Your task to perform on an android device: uninstall "Microsoft Excel" Image 0: 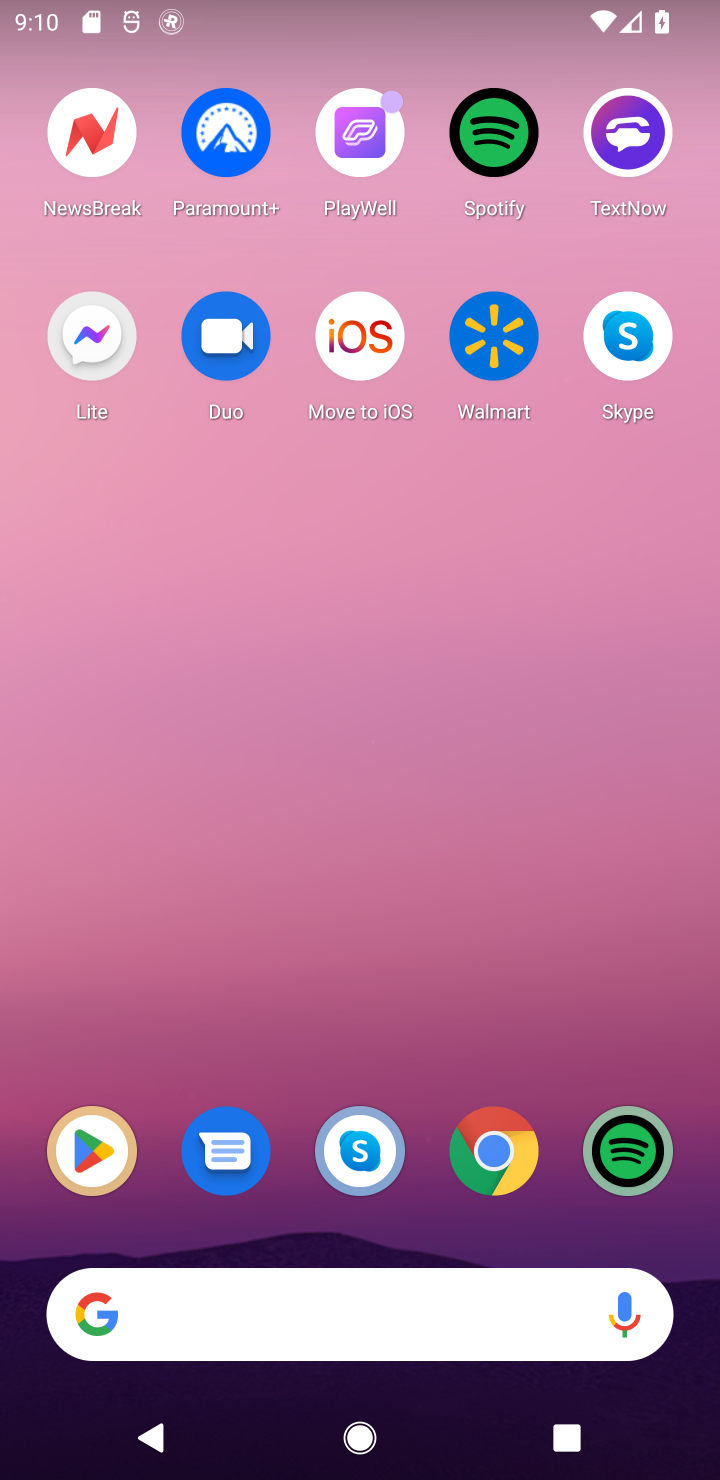
Step 0: click (120, 1159)
Your task to perform on an android device: uninstall "Microsoft Excel" Image 1: 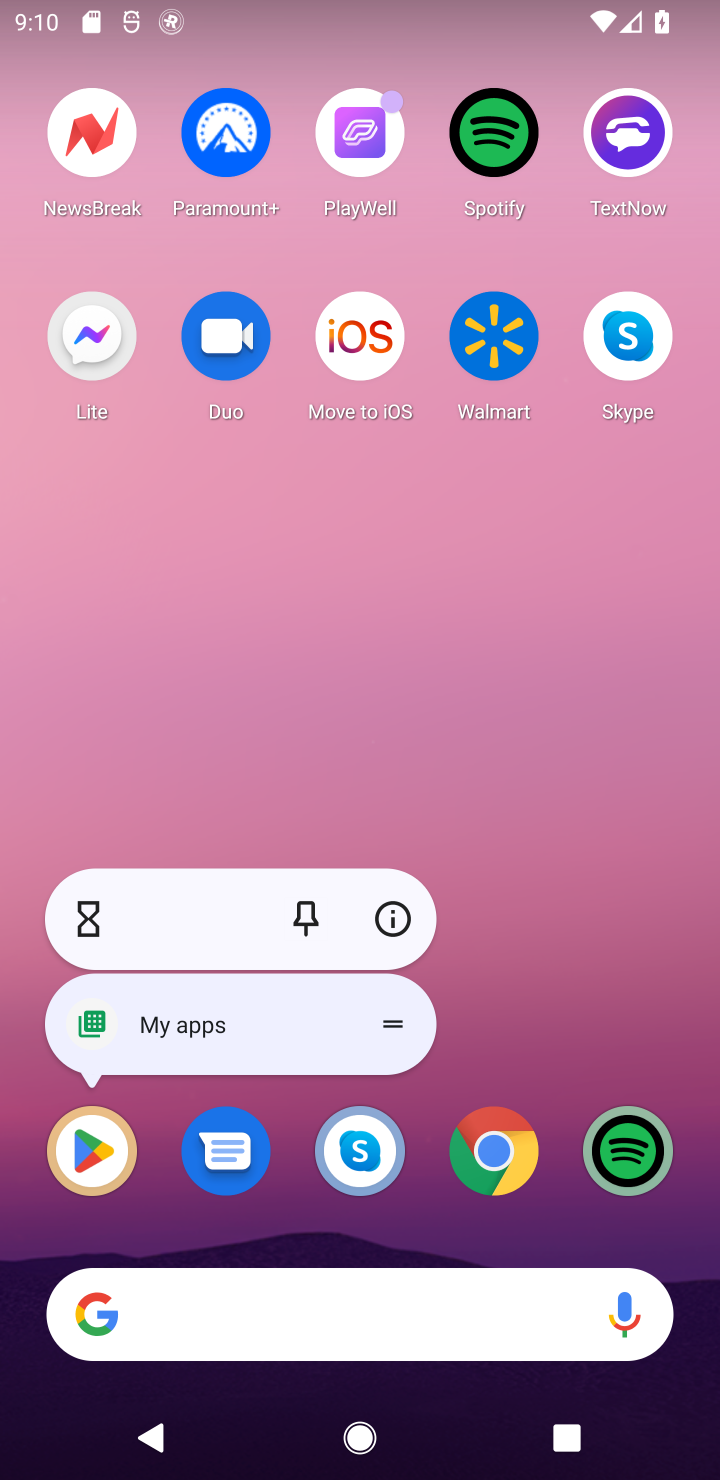
Step 1: click (120, 1159)
Your task to perform on an android device: uninstall "Microsoft Excel" Image 2: 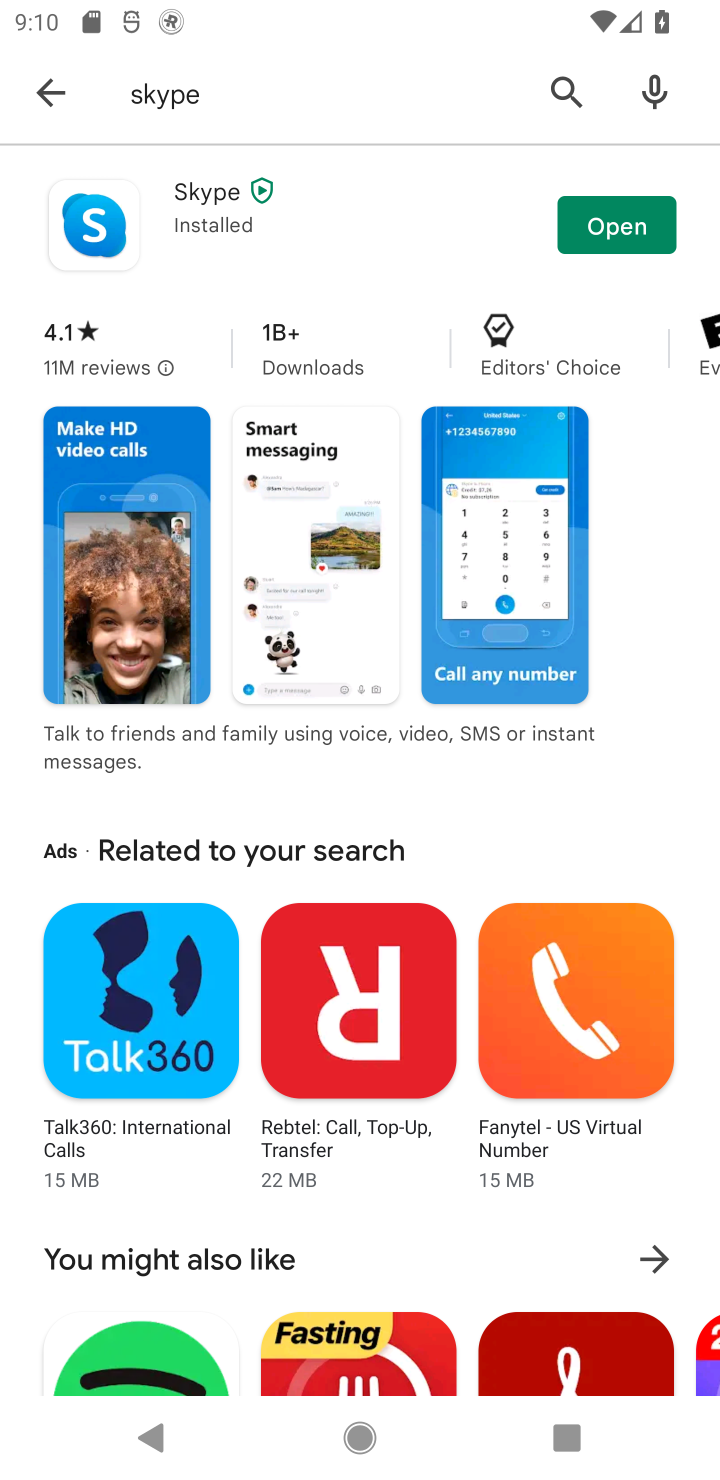
Step 2: click (568, 63)
Your task to perform on an android device: uninstall "Microsoft Excel" Image 3: 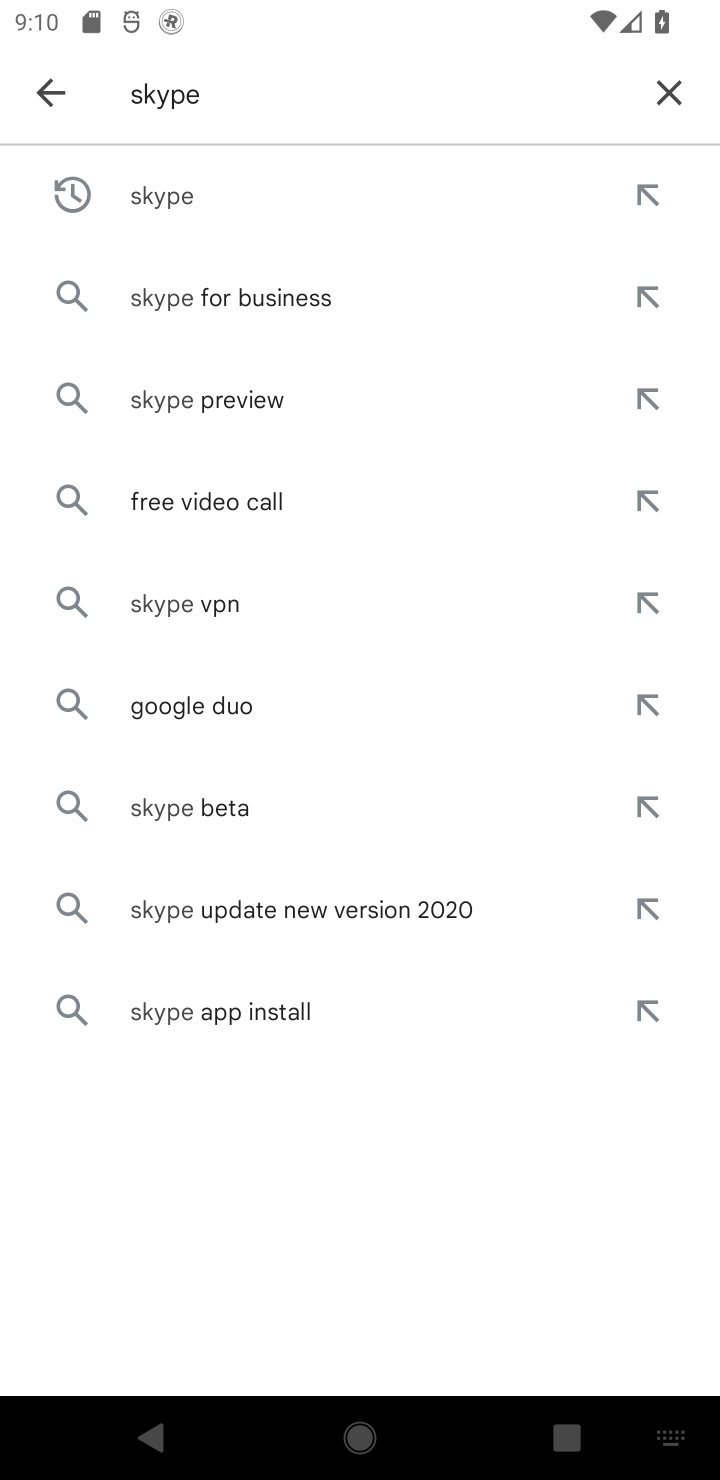
Step 3: click (664, 103)
Your task to perform on an android device: uninstall "Microsoft Excel" Image 4: 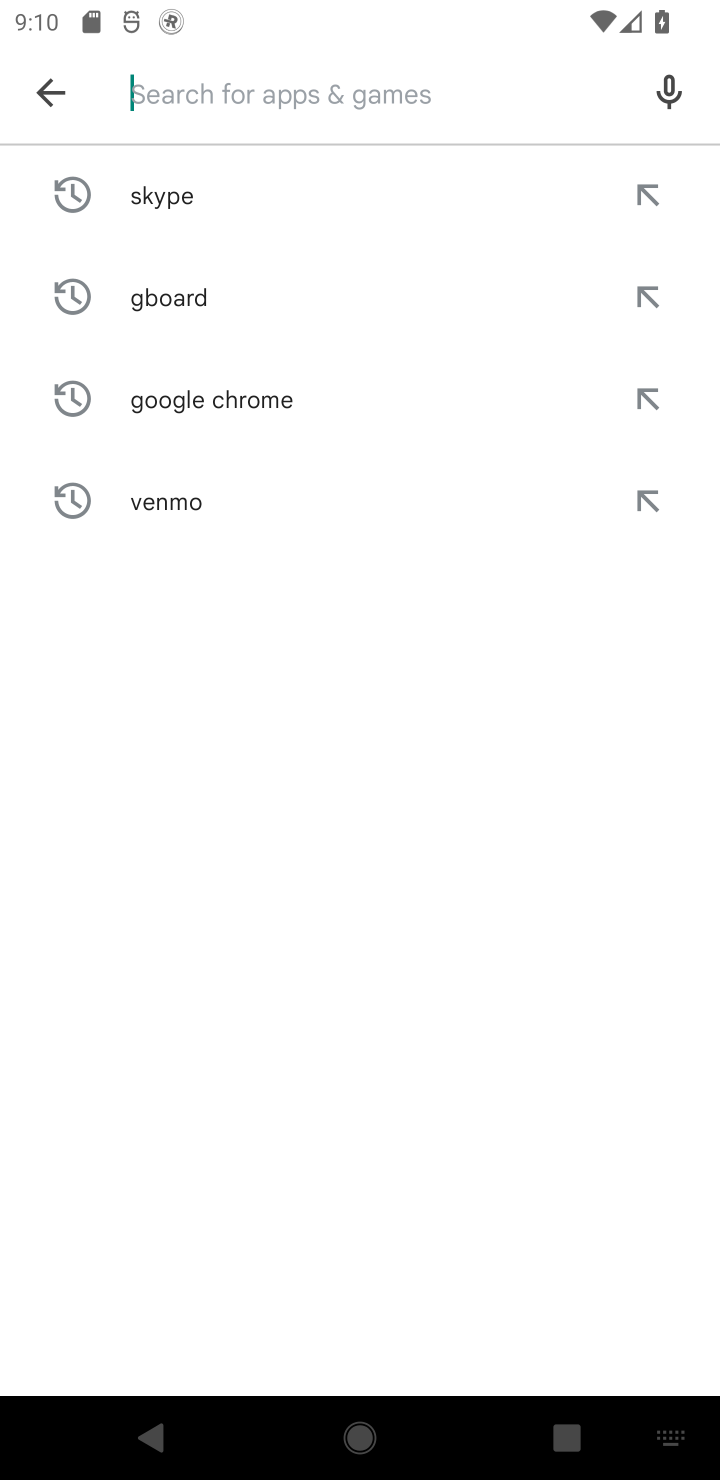
Step 4: type "Microsoft Excel"
Your task to perform on an android device: uninstall "Microsoft Excel" Image 5: 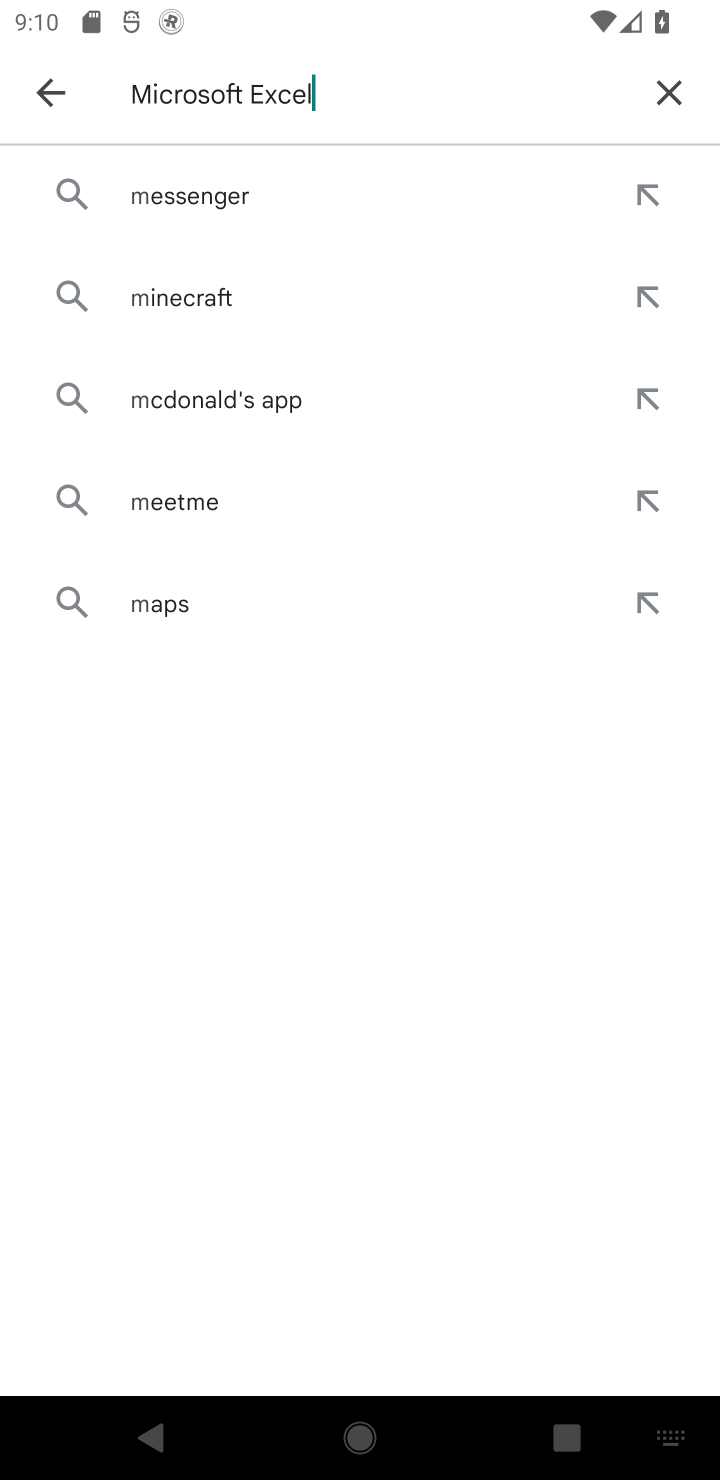
Step 5: type ""
Your task to perform on an android device: uninstall "Microsoft Excel" Image 6: 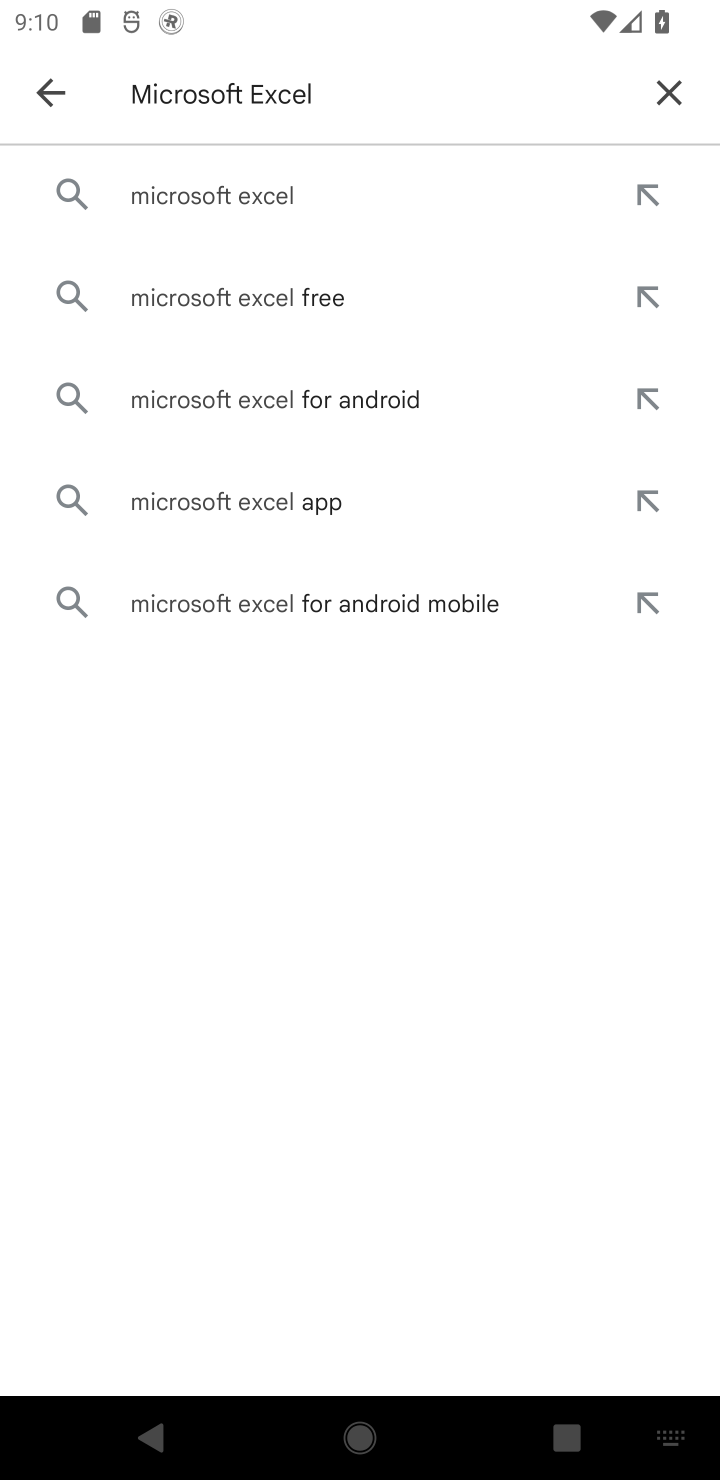
Step 6: click (285, 178)
Your task to perform on an android device: uninstall "Microsoft Excel" Image 7: 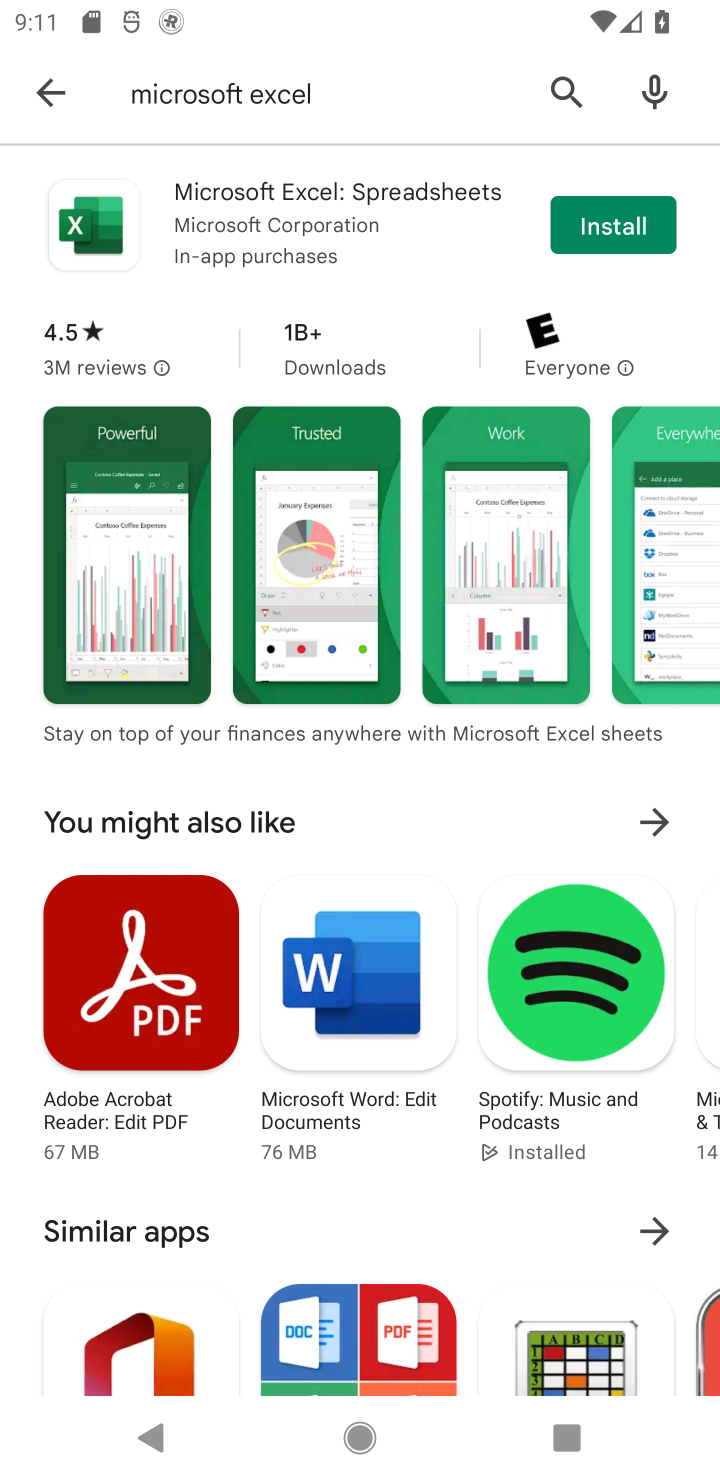
Step 7: click (409, 219)
Your task to perform on an android device: uninstall "Microsoft Excel" Image 8: 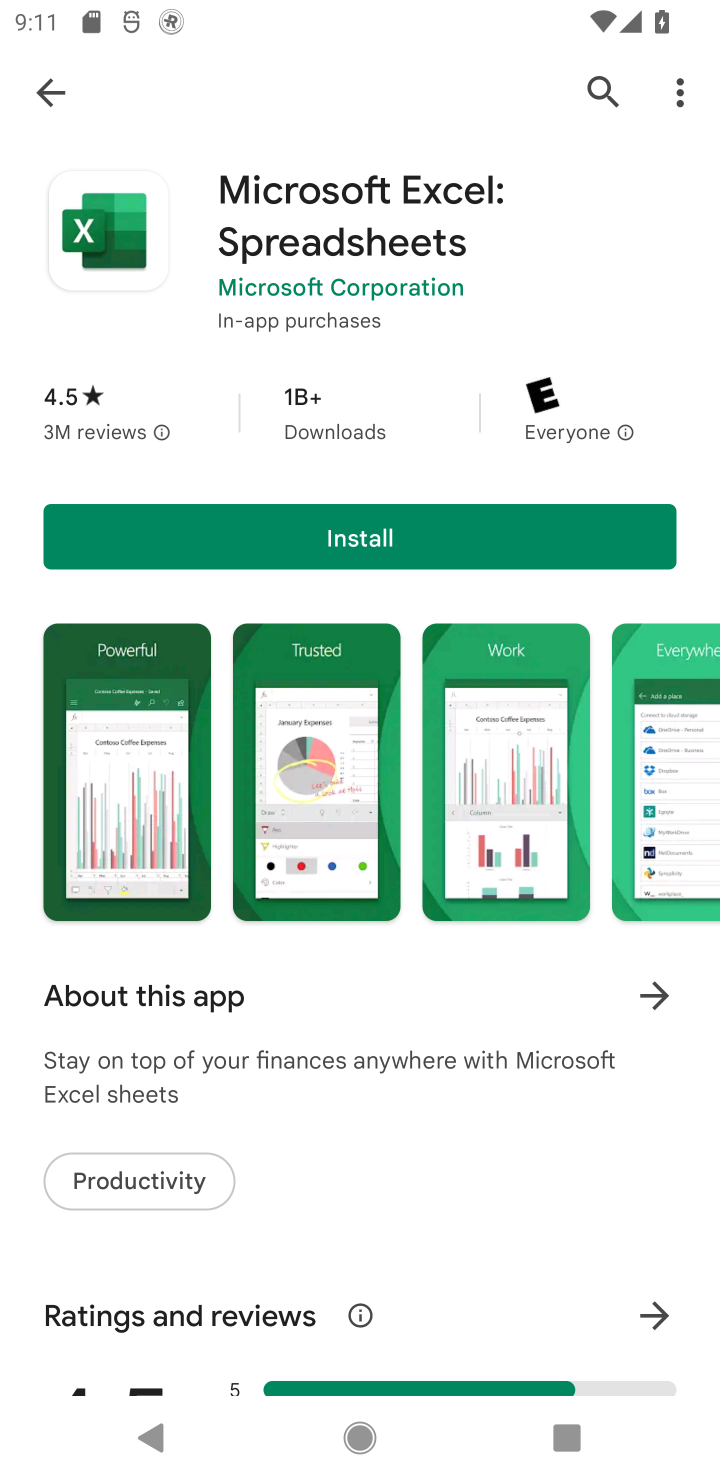
Step 8: task complete